Your task to perform on an android device: clear all cookies in the chrome app Image 0: 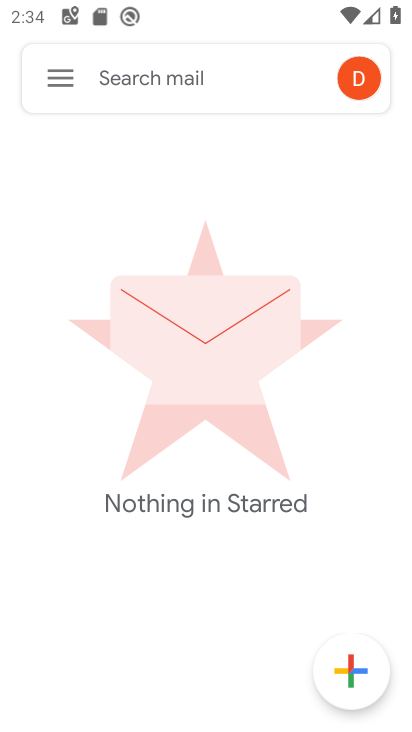
Step 0: drag from (185, 618) to (208, 377)
Your task to perform on an android device: clear all cookies in the chrome app Image 1: 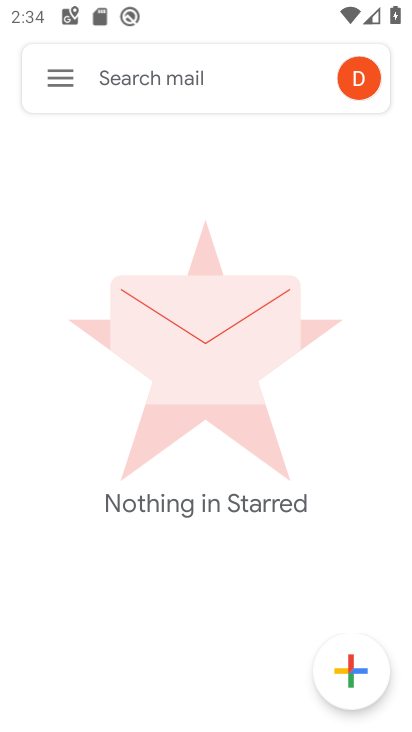
Step 1: press home button
Your task to perform on an android device: clear all cookies in the chrome app Image 2: 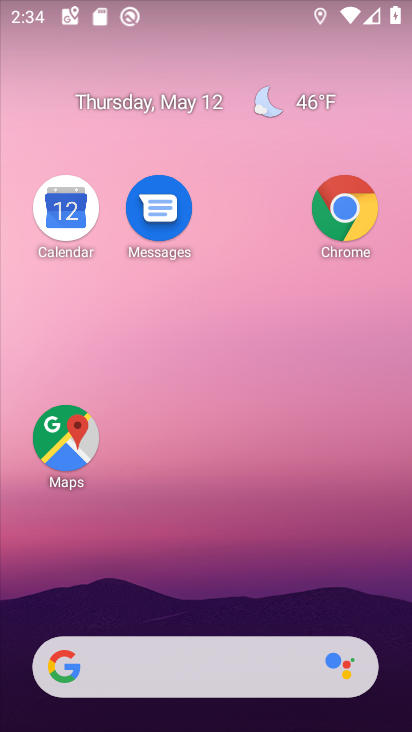
Step 2: click (344, 217)
Your task to perform on an android device: clear all cookies in the chrome app Image 3: 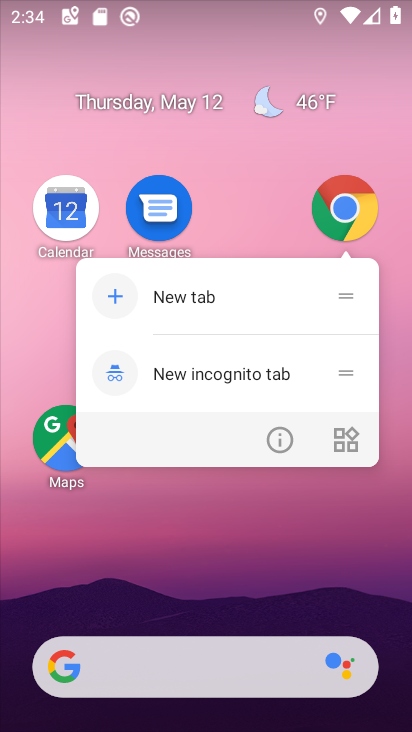
Step 3: click (282, 441)
Your task to perform on an android device: clear all cookies in the chrome app Image 4: 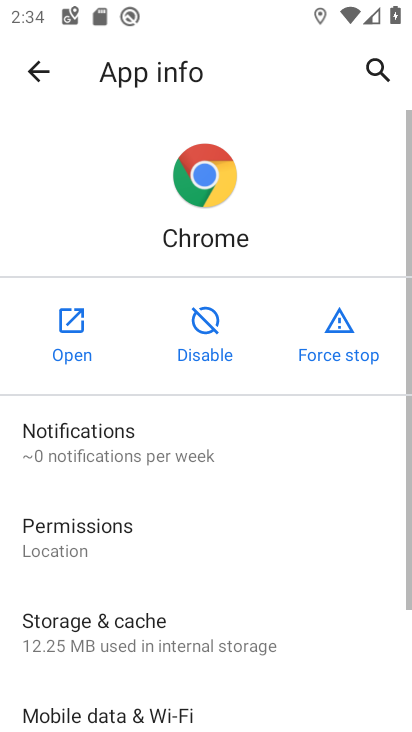
Step 4: click (71, 335)
Your task to perform on an android device: clear all cookies in the chrome app Image 5: 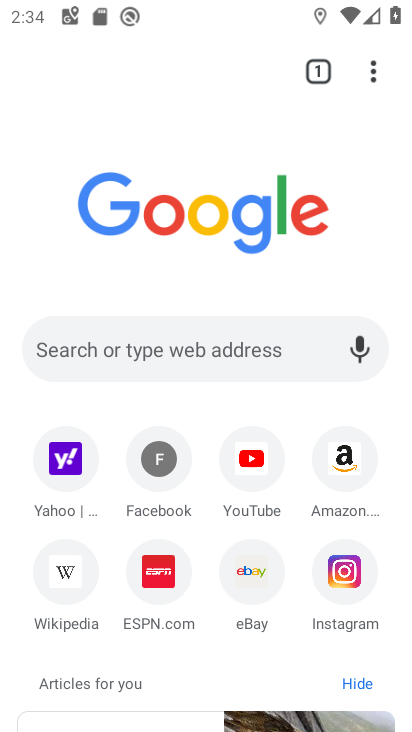
Step 5: click (384, 47)
Your task to perform on an android device: clear all cookies in the chrome app Image 6: 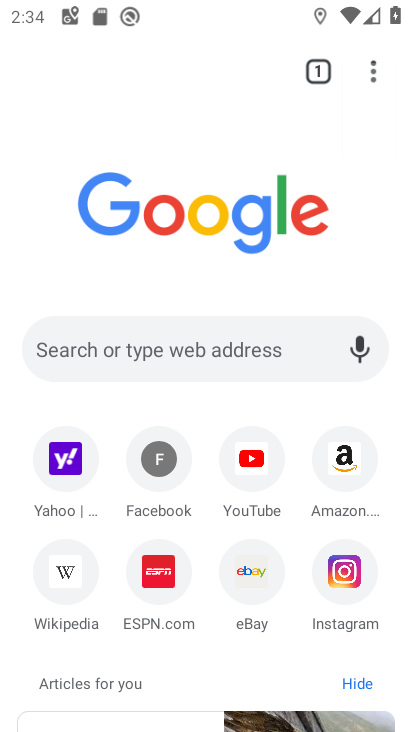
Step 6: click (370, 54)
Your task to perform on an android device: clear all cookies in the chrome app Image 7: 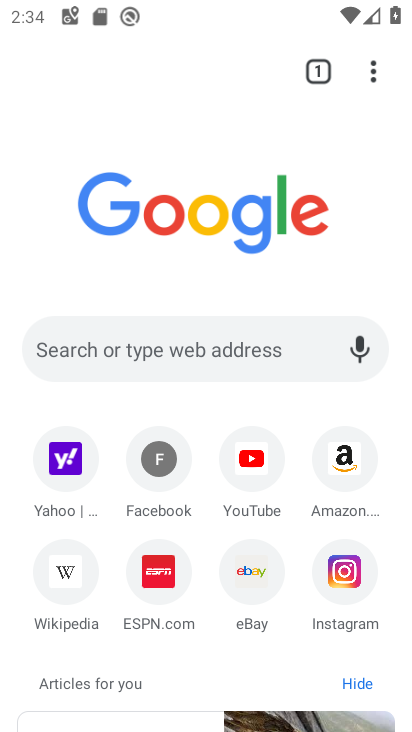
Step 7: drag from (222, 535) to (326, 194)
Your task to perform on an android device: clear all cookies in the chrome app Image 8: 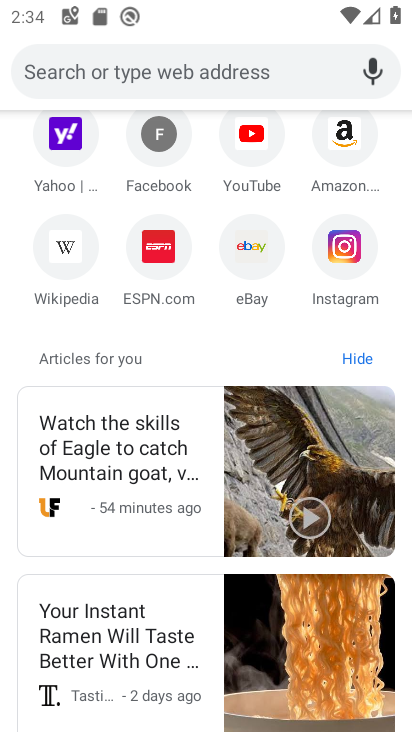
Step 8: drag from (301, 135) to (321, 593)
Your task to perform on an android device: clear all cookies in the chrome app Image 9: 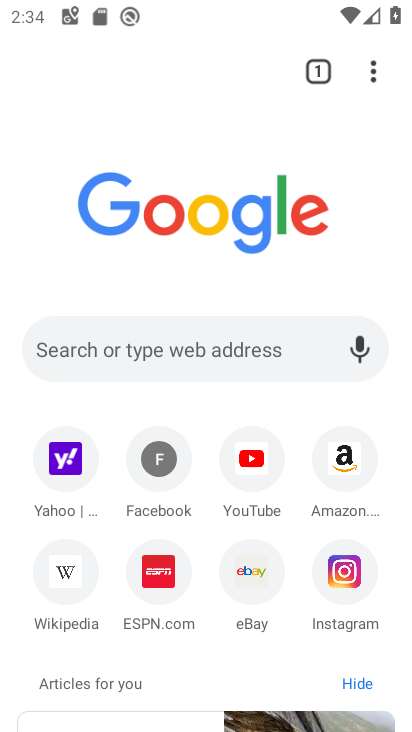
Step 9: click (373, 74)
Your task to perform on an android device: clear all cookies in the chrome app Image 10: 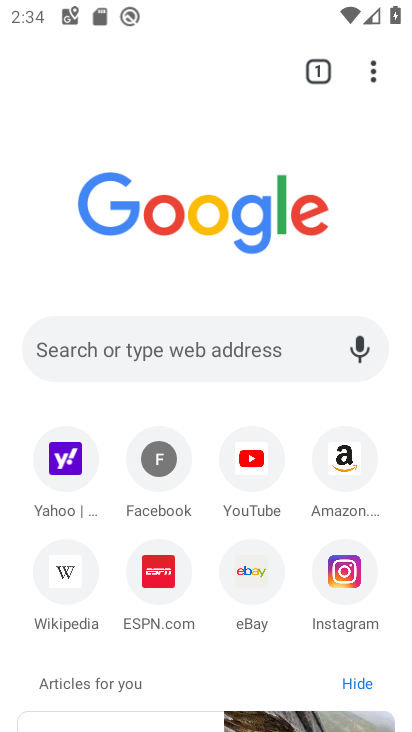
Step 10: click (376, 67)
Your task to perform on an android device: clear all cookies in the chrome app Image 11: 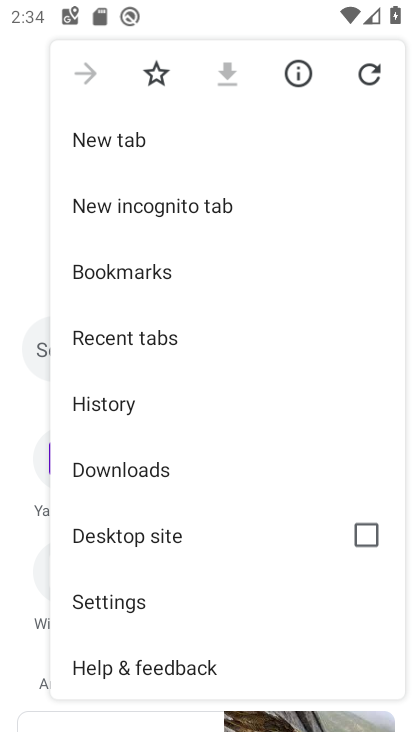
Step 11: drag from (121, 567) to (275, 108)
Your task to perform on an android device: clear all cookies in the chrome app Image 12: 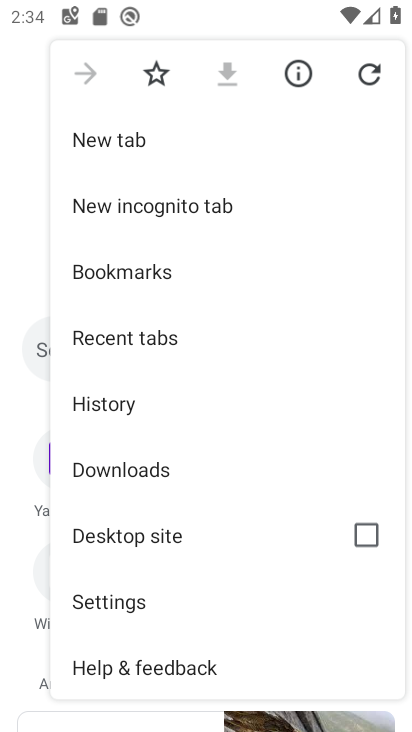
Step 12: click (150, 600)
Your task to perform on an android device: clear all cookies in the chrome app Image 13: 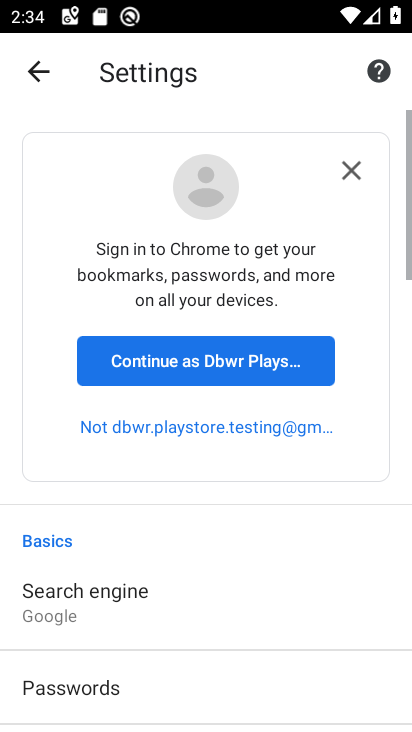
Step 13: drag from (194, 601) to (263, 195)
Your task to perform on an android device: clear all cookies in the chrome app Image 14: 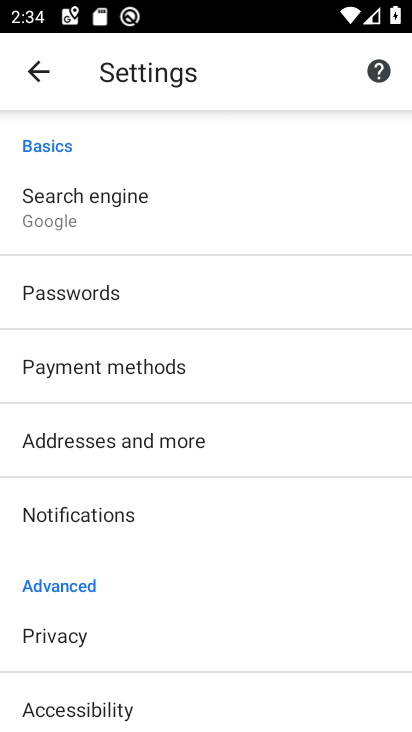
Step 14: drag from (230, 678) to (283, 132)
Your task to perform on an android device: clear all cookies in the chrome app Image 15: 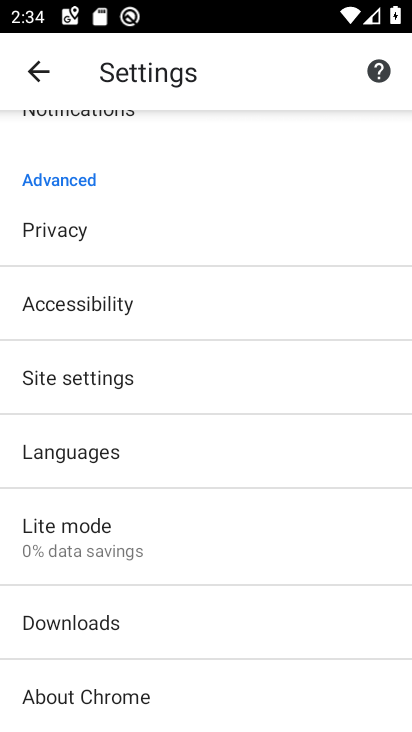
Step 15: click (114, 381)
Your task to perform on an android device: clear all cookies in the chrome app Image 16: 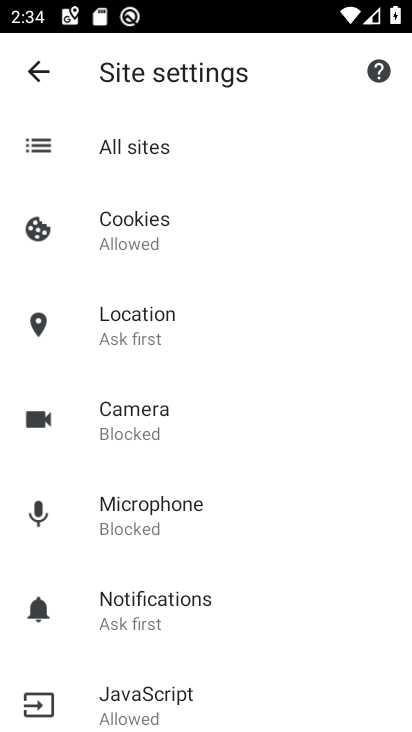
Step 16: click (42, 71)
Your task to perform on an android device: clear all cookies in the chrome app Image 17: 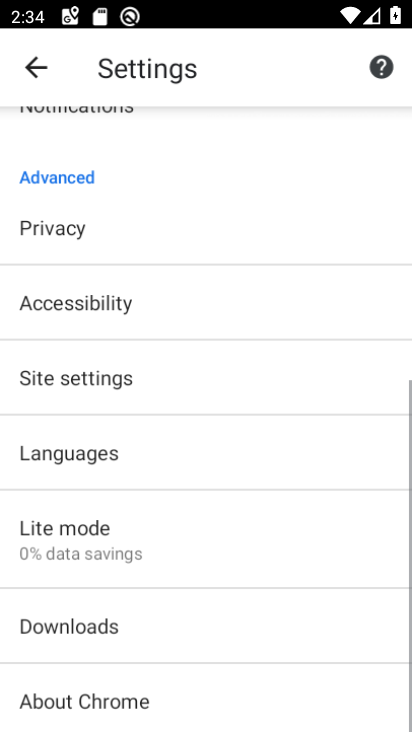
Step 17: click (41, 71)
Your task to perform on an android device: clear all cookies in the chrome app Image 18: 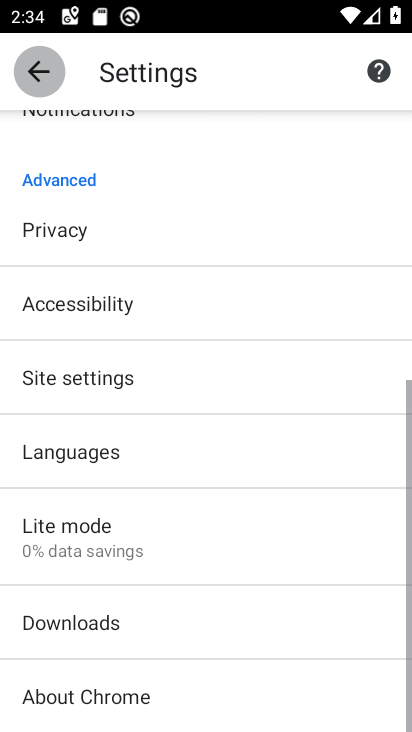
Step 18: click (41, 71)
Your task to perform on an android device: clear all cookies in the chrome app Image 19: 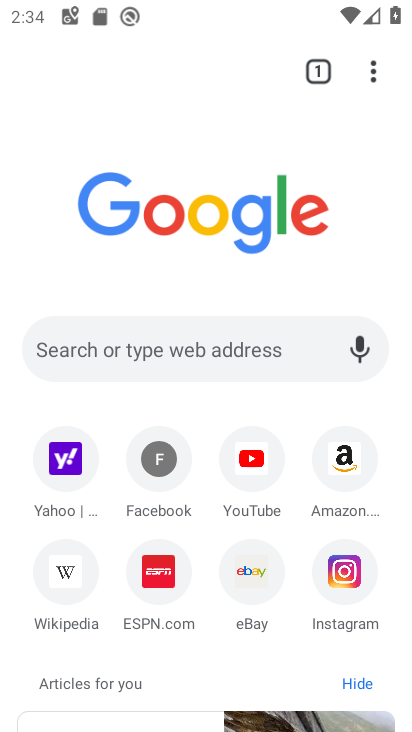
Step 19: click (384, 75)
Your task to perform on an android device: clear all cookies in the chrome app Image 20: 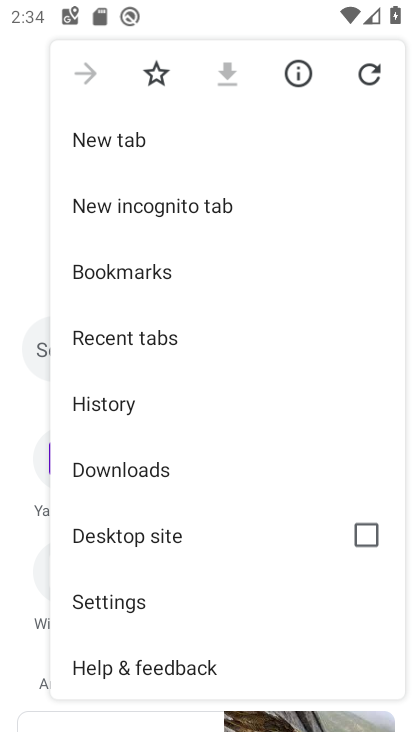
Step 20: click (141, 419)
Your task to perform on an android device: clear all cookies in the chrome app Image 21: 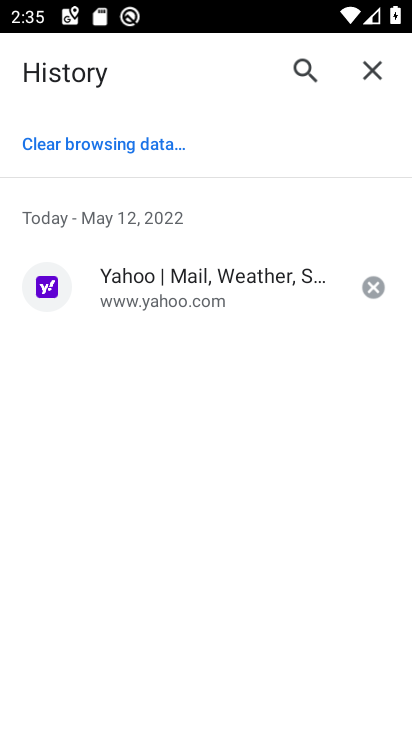
Step 21: click (72, 152)
Your task to perform on an android device: clear all cookies in the chrome app Image 22: 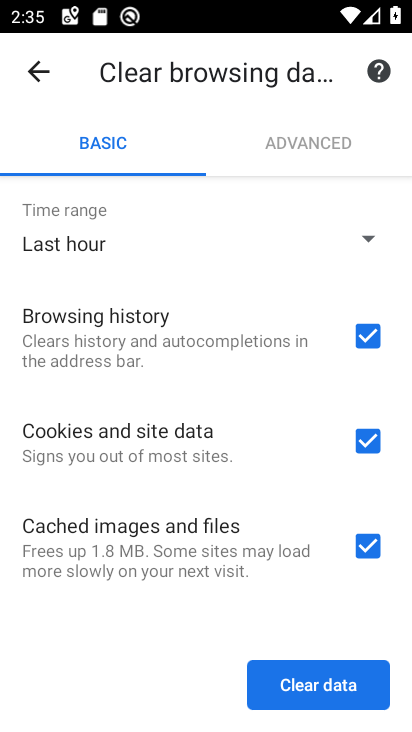
Step 22: click (371, 323)
Your task to perform on an android device: clear all cookies in the chrome app Image 23: 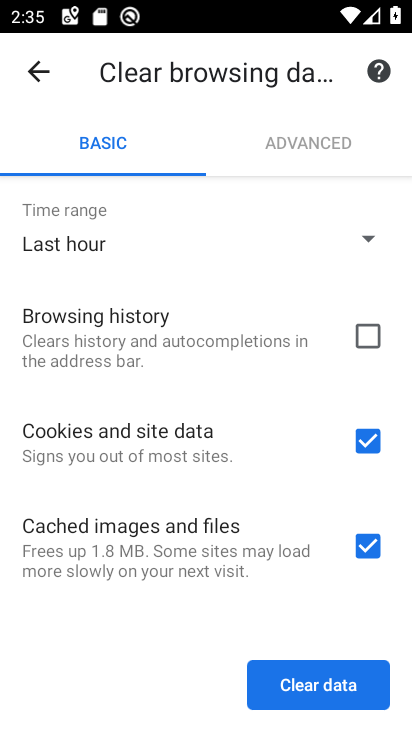
Step 23: click (358, 538)
Your task to perform on an android device: clear all cookies in the chrome app Image 24: 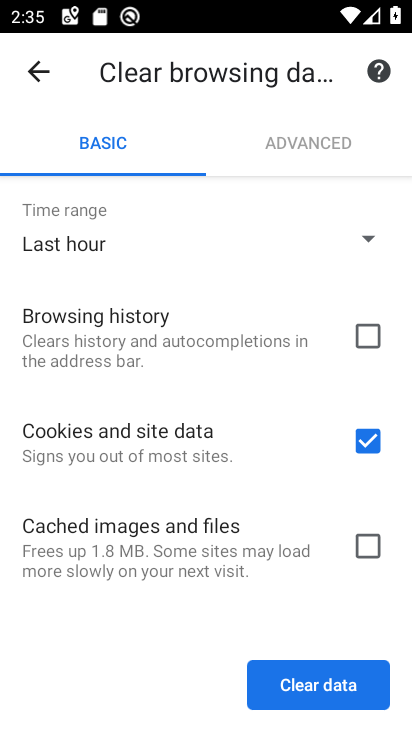
Step 24: click (287, 706)
Your task to perform on an android device: clear all cookies in the chrome app Image 25: 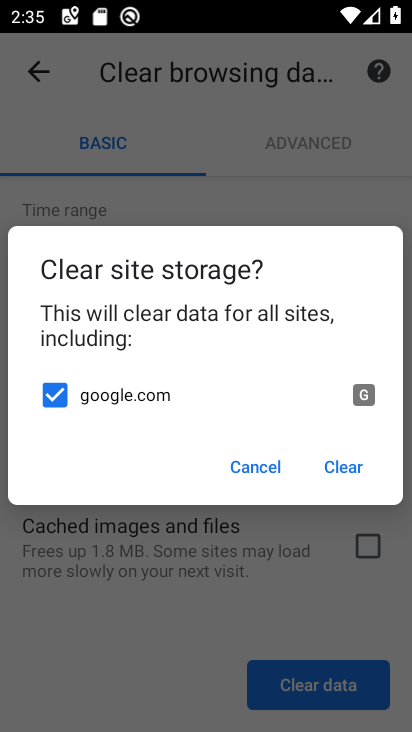
Step 25: click (340, 462)
Your task to perform on an android device: clear all cookies in the chrome app Image 26: 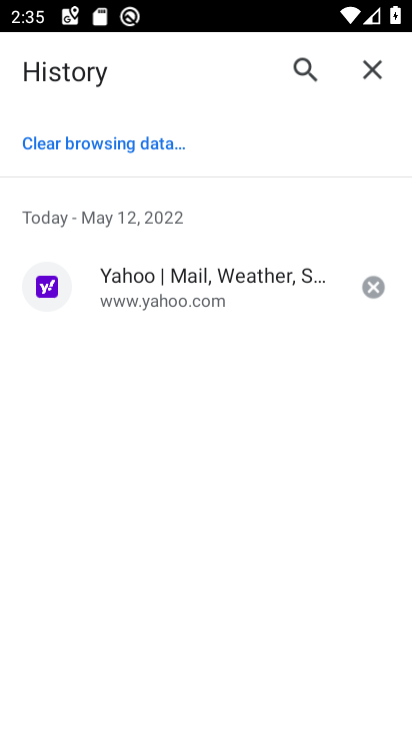
Step 26: task complete